Your task to perform on an android device: change the clock display to analog Image 0: 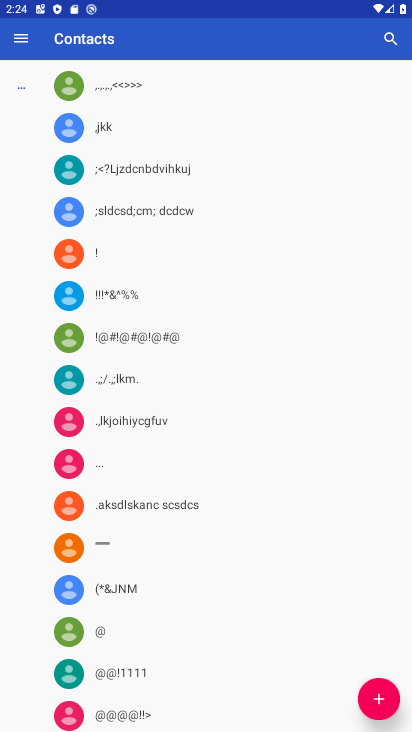
Step 0: press home button
Your task to perform on an android device: change the clock display to analog Image 1: 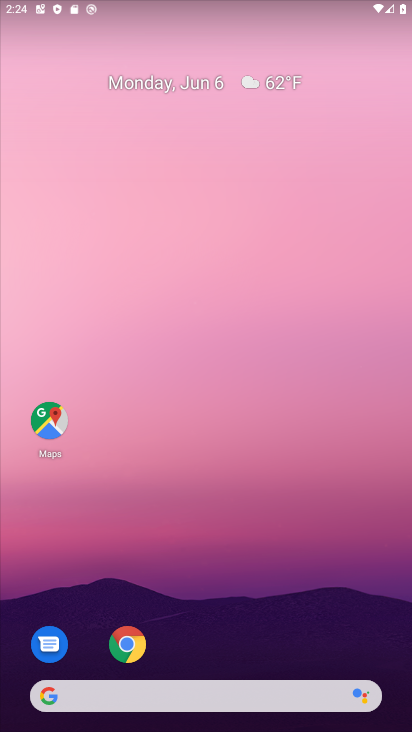
Step 1: drag from (252, 607) to (198, 143)
Your task to perform on an android device: change the clock display to analog Image 2: 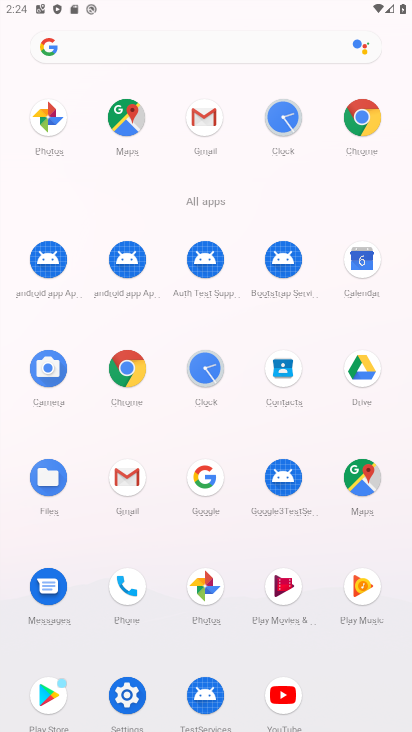
Step 2: click (212, 361)
Your task to perform on an android device: change the clock display to analog Image 3: 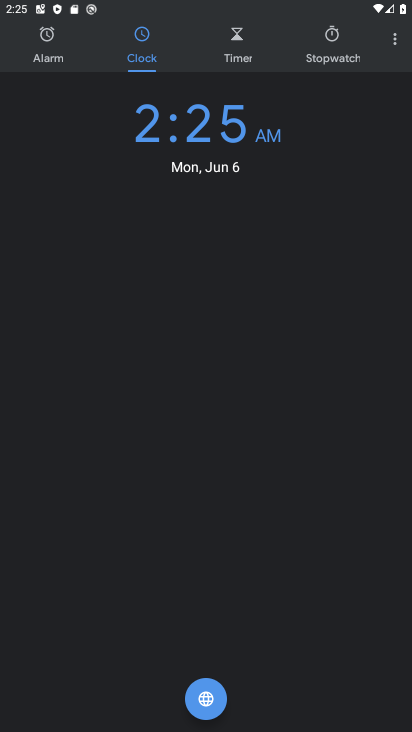
Step 3: click (388, 51)
Your task to perform on an android device: change the clock display to analog Image 4: 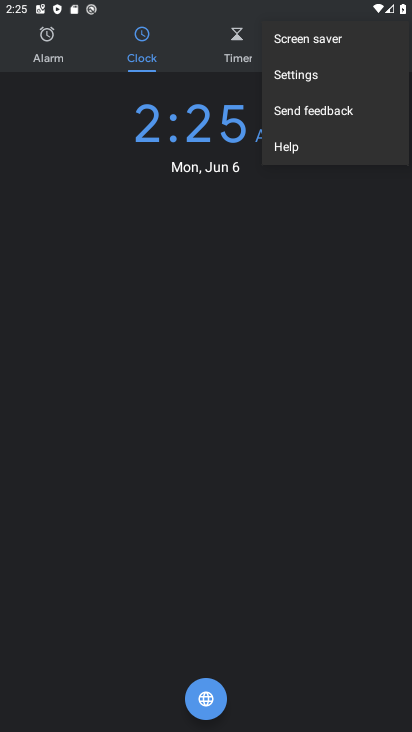
Step 4: click (307, 82)
Your task to perform on an android device: change the clock display to analog Image 5: 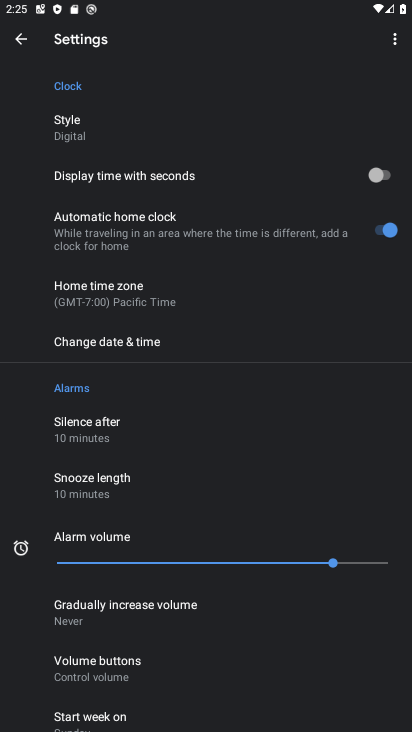
Step 5: click (109, 138)
Your task to perform on an android device: change the clock display to analog Image 6: 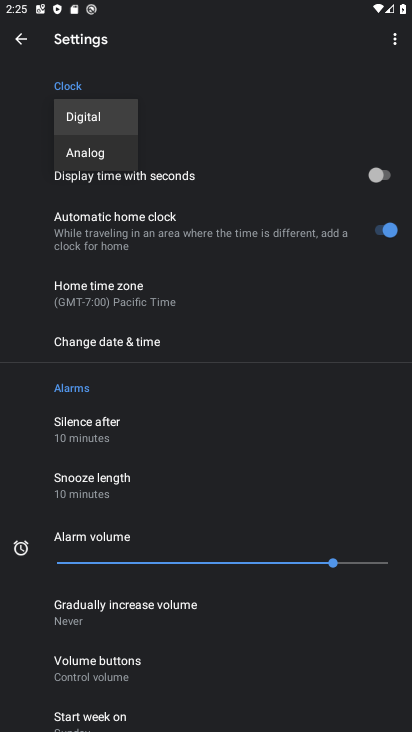
Step 6: click (106, 153)
Your task to perform on an android device: change the clock display to analog Image 7: 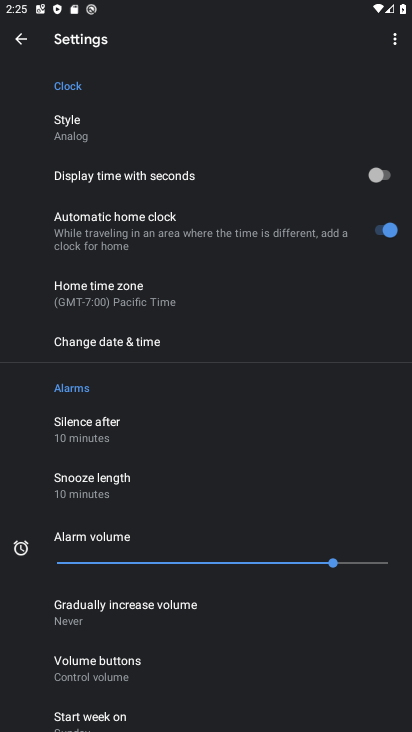
Step 7: task complete